Your task to perform on an android device: change keyboard looks Image 0: 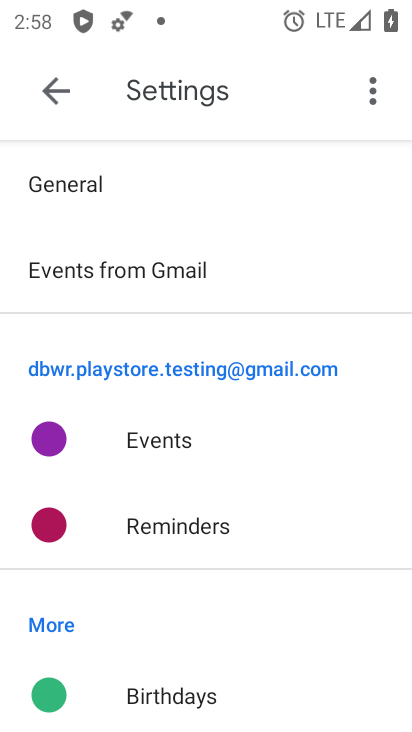
Step 0: press home button
Your task to perform on an android device: change keyboard looks Image 1: 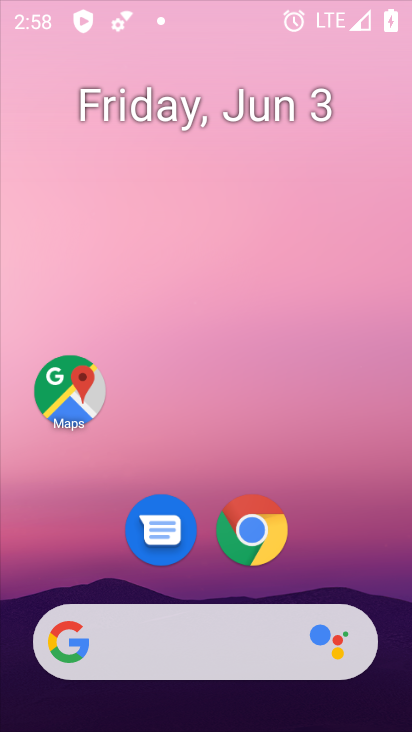
Step 1: drag from (110, 723) to (99, 42)
Your task to perform on an android device: change keyboard looks Image 2: 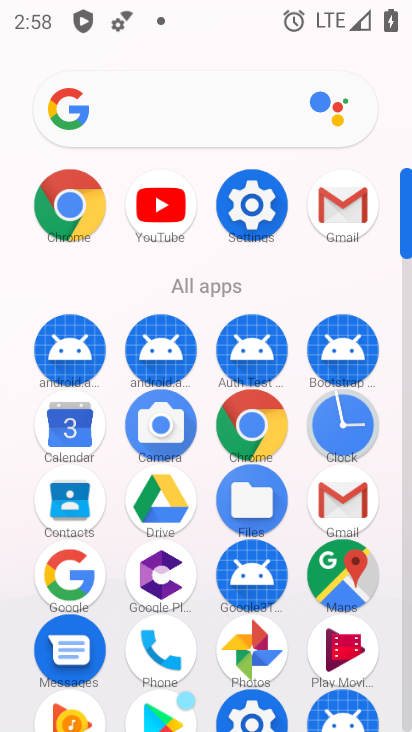
Step 2: click (260, 218)
Your task to perform on an android device: change keyboard looks Image 3: 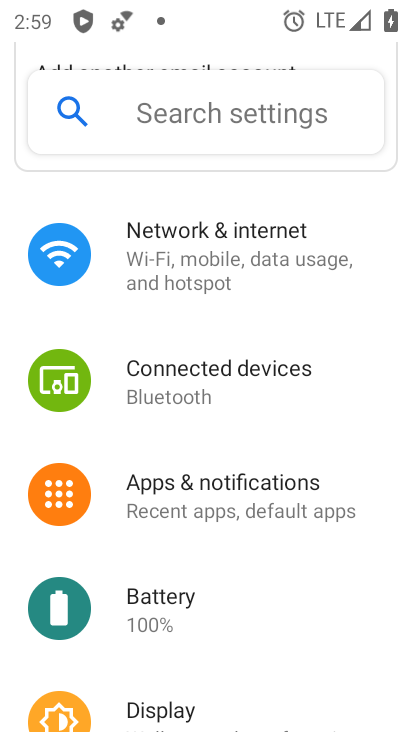
Step 3: drag from (281, 370) to (308, 53)
Your task to perform on an android device: change keyboard looks Image 4: 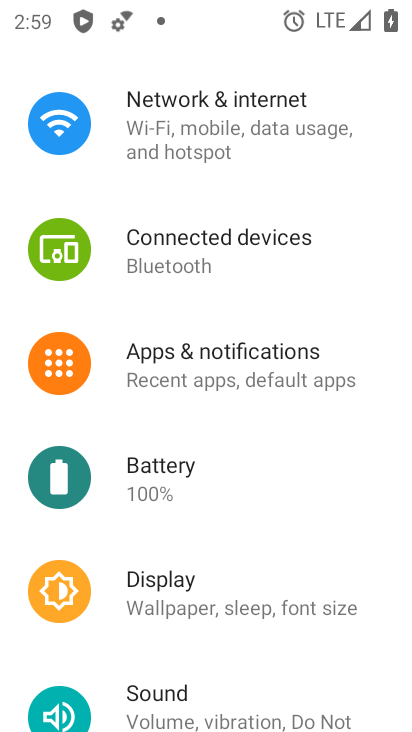
Step 4: drag from (258, 640) to (283, 120)
Your task to perform on an android device: change keyboard looks Image 5: 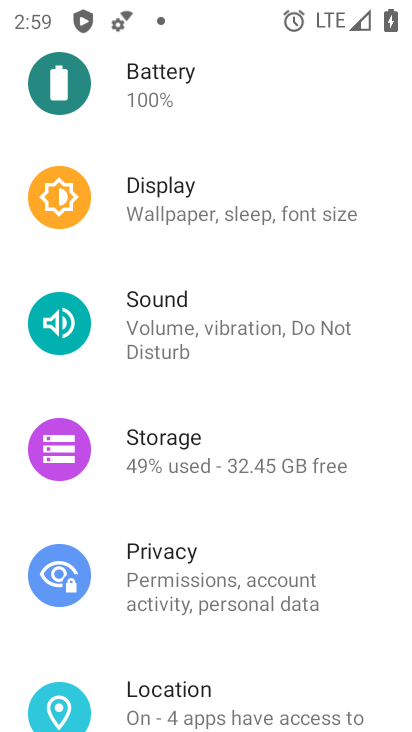
Step 5: drag from (252, 604) to (296, 118)
Your task to perform on an android device: change keyboard looks Image 6: 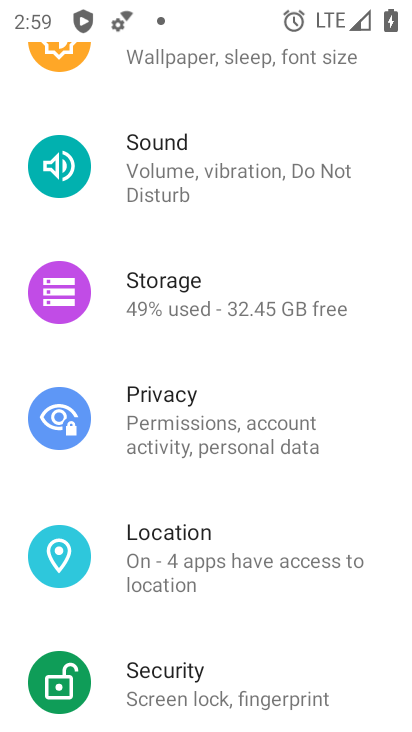
Step 6: drag from (258, 630) to (369, 144)
Your task to perform on an android device: change keyboard looks Image 7: 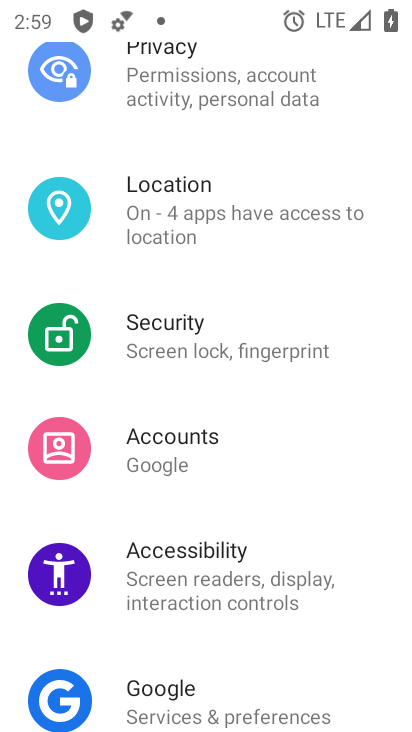
Step 7: drag from (355, 671) to (315, 175)
Your task to perform on an android device: change keyboard looks Image 8: 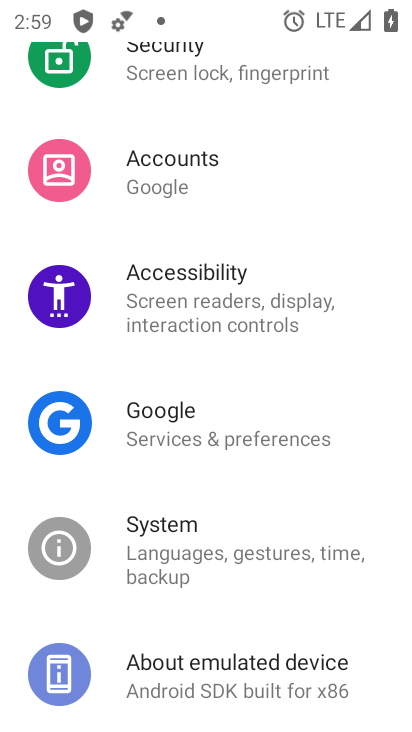
Step 8: click (204, 563)
Your task to perform on an android device: change keyboard looks Image 9: 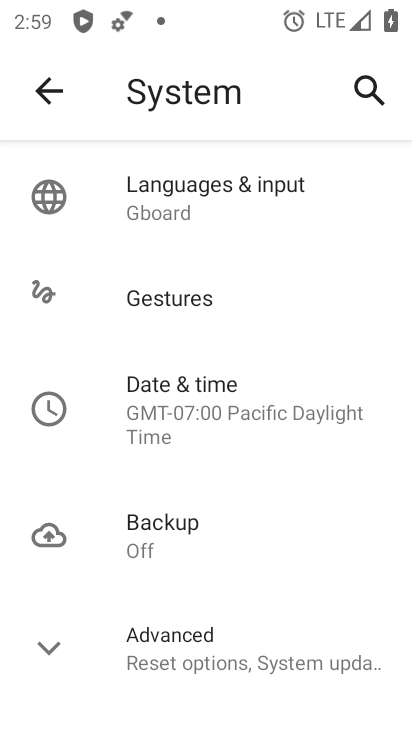
Step 9: drag from (255, 662) to (227, 222)
Your task to perform on an android device: change keyboard looks Image 10: 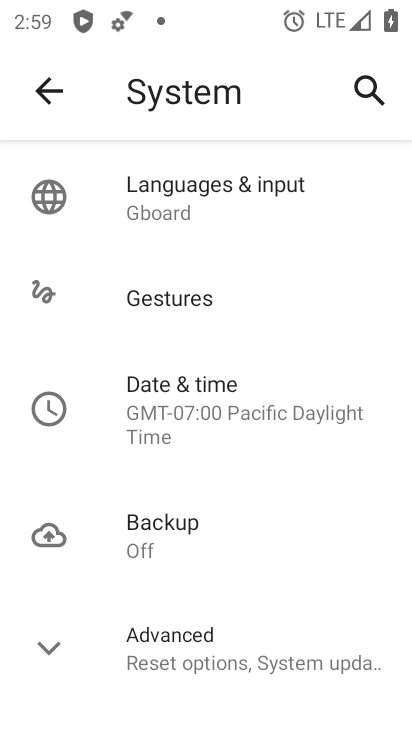
Step 10: click (212, 210)
Your task to perform on an android device: change keyboard looks Image 11: 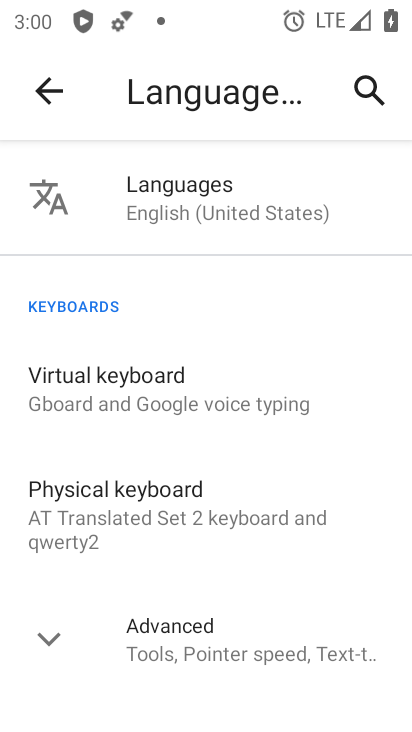
Step 11: click (202, 389)
Your task to perform on an android device: change keyboard looks Image 12: 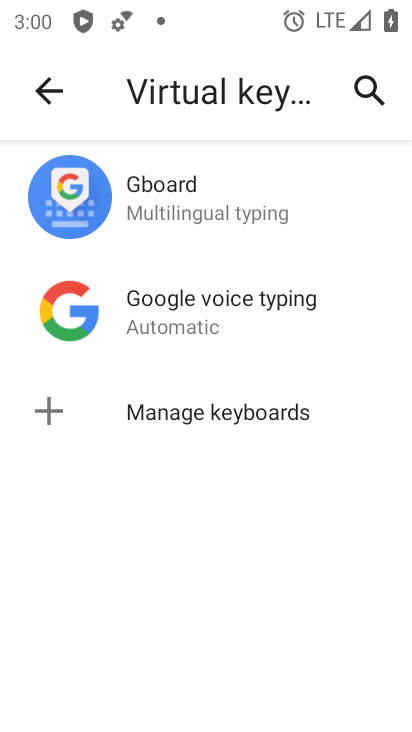
Step 12: click (189, 215)
Your task to perform on an android device: change keyboard looks Image 13: 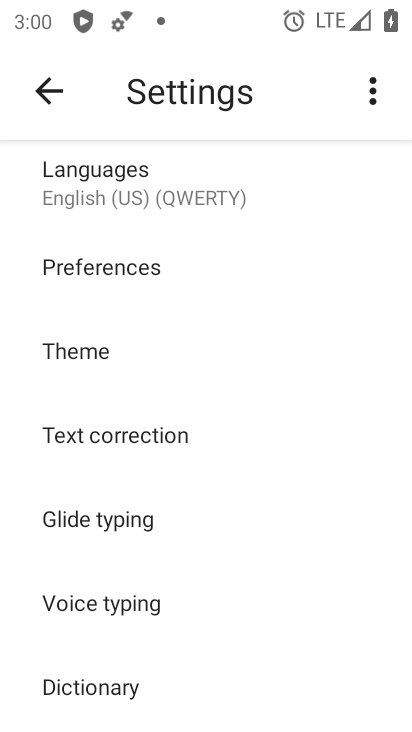
Step 13: click (85, 367)
Your task to perform on an android device: change keyboard looks Image 14: 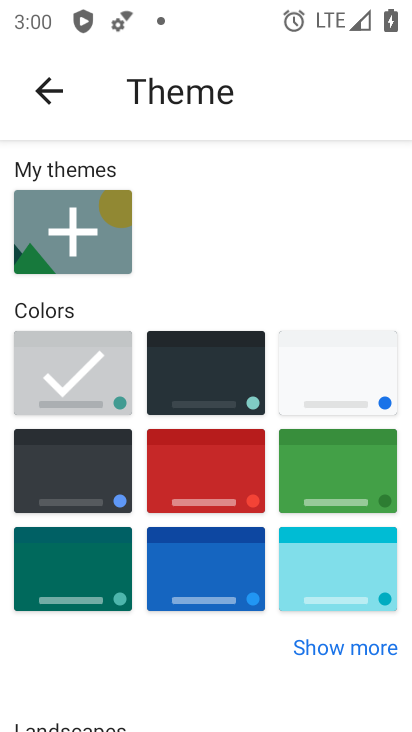
Step 14: click (184, 378)
Your task to perform on an android device: change keyboard looks Image 15: 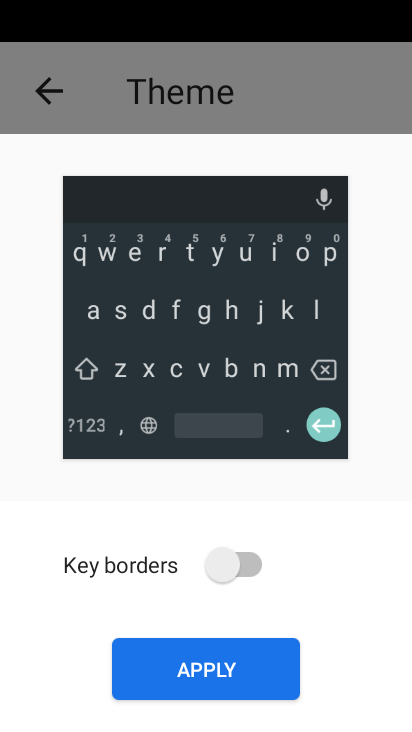
Step 15: click (266, 678)
Your task to perform on an android device: change keyboard looks Image 16: 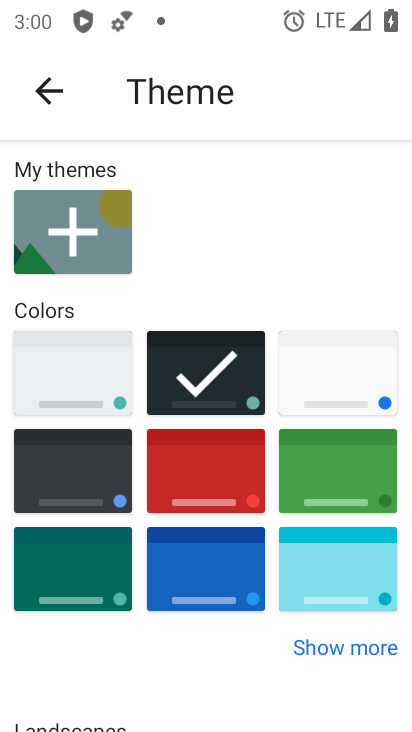
Step 16: task complete